Your task to perform on an android device: see tabs open on other devices in the chrome app Image 0: 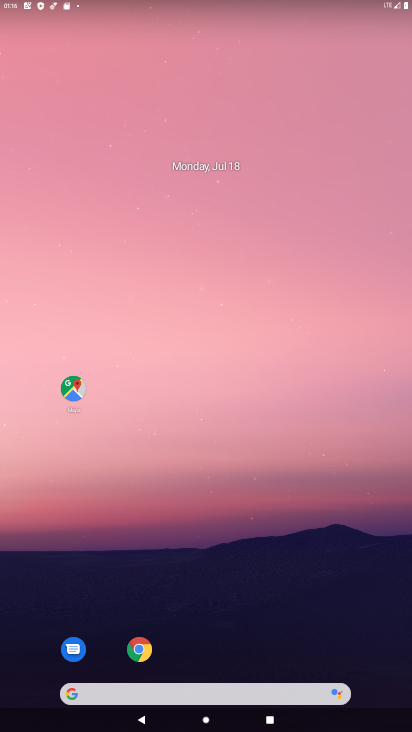
Step 0: click (147, 647)
Your task to perform on an android device: see tabs open on other devices in the chrome app Image 1: 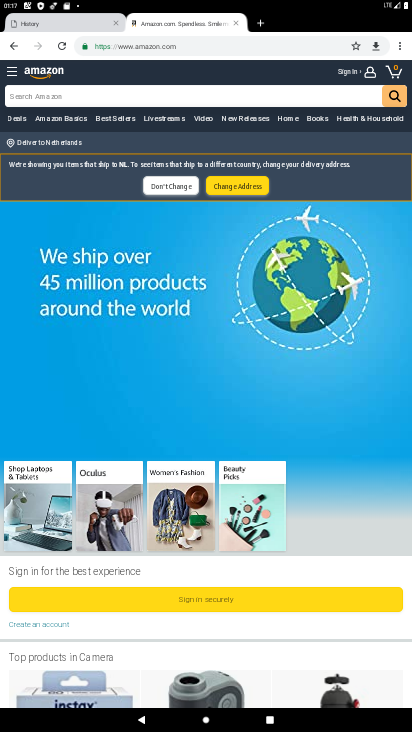
Step 1: click (404, 49)
Your task to perform on an android device: see tabs open on other devices in the chrome app Image 2: 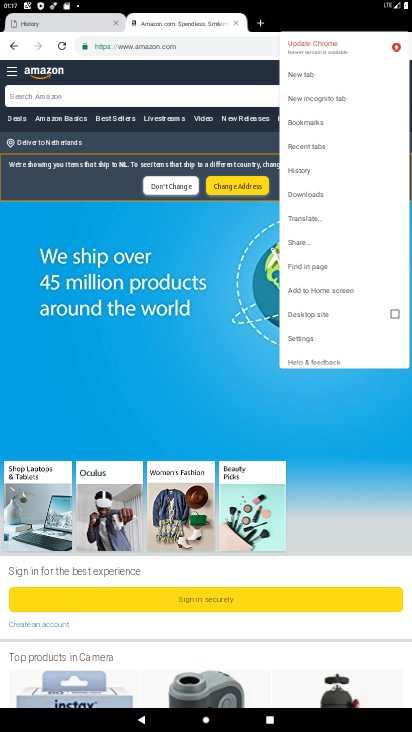
Step 2: click (340, 139)
Your task to perform on an android device: see tabs open on other devices in the chrome app Image 3: 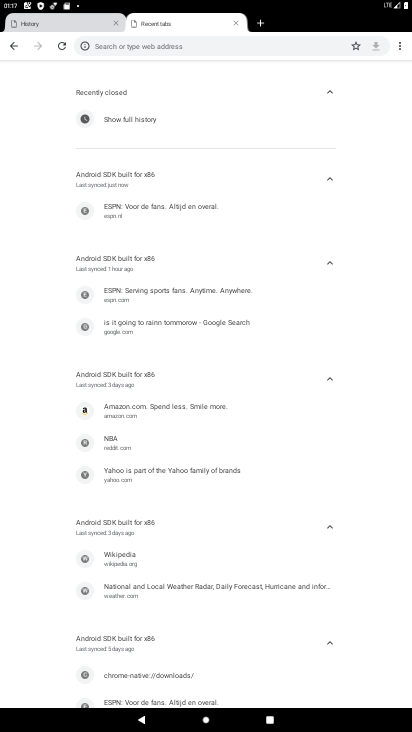
Step 3: task complete